Your task to perform on an android device: Go to calendar. Show me events next week Image 0: 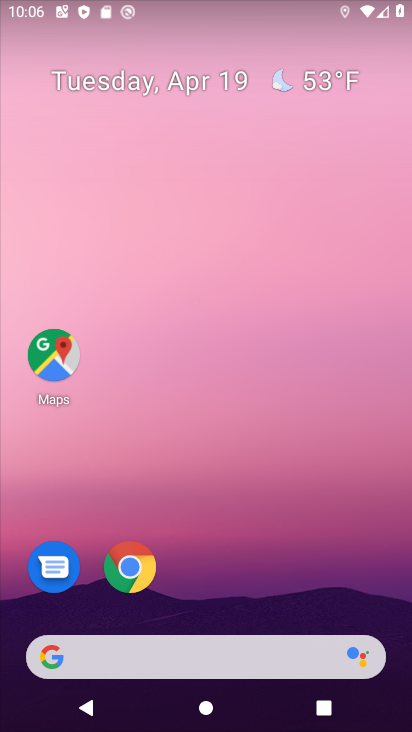
Step 0: drag from (310, 578) to (242, 187)
Your task to perform on an android device: Go to calendar. Show me events next week Image 1: 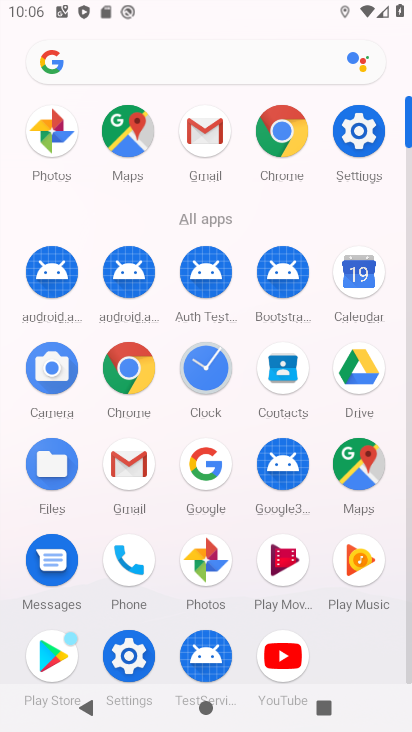
Step 1: click (367, 274)
Your task to perform on an android device: Go to calendar. Show me events next week Image 2: 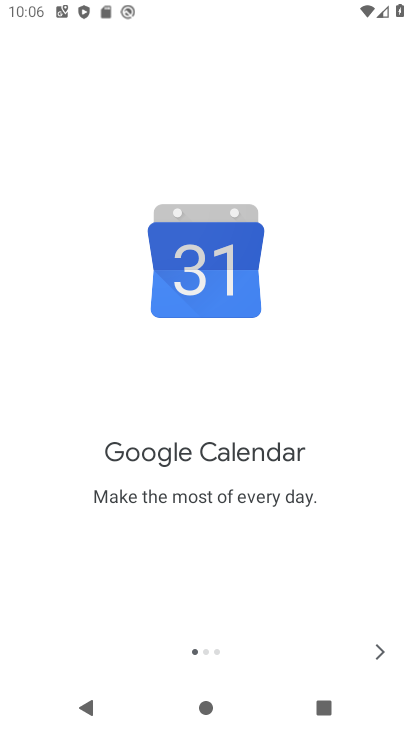
Step 2: click (378, 641)
Your task to perform on an android device: Go to calendar. Show me events next week Image 3: 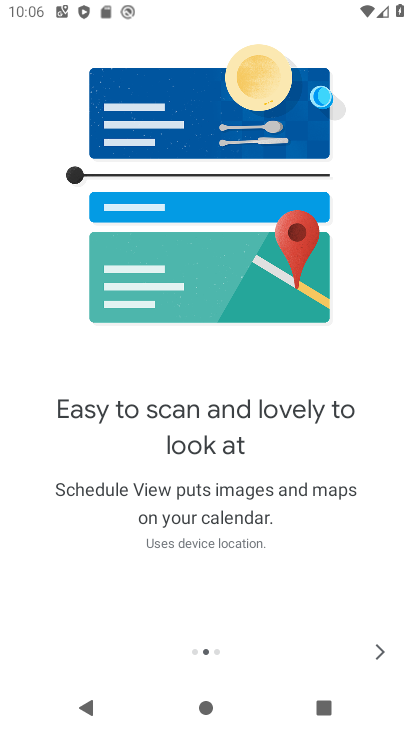
Step 3: click (383, 656)
Your task to perform on an android device: Go to calendar. Show me events next week Image 4: 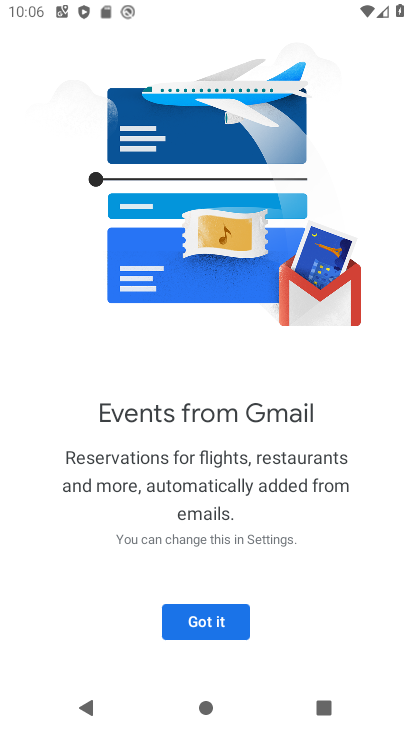
Step 4: click (200, 630)
Your task to perform on an android device: Go to calendar. Show me events next week Image 5: 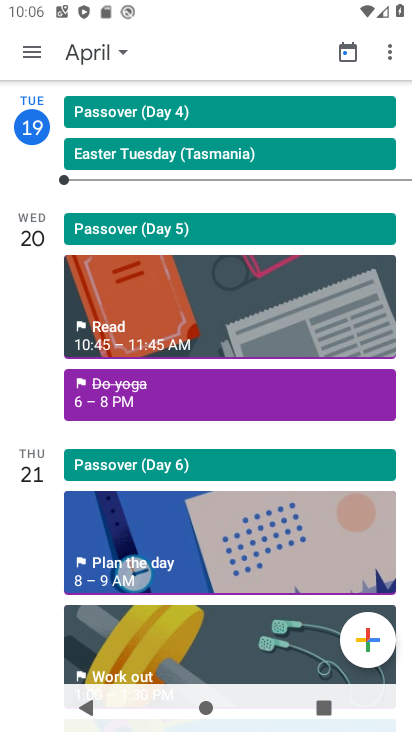
Step 5: click (33, 47)
Your task to perform on an android device: Go to calendar. Show me events next week Image 6: 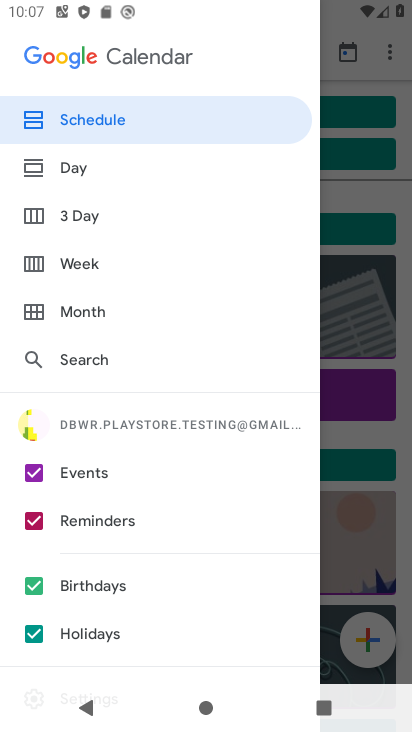
Step 6: click (33, 631)
Your task to perform on an android device: Go to calendar. Show me events next week Image 7: 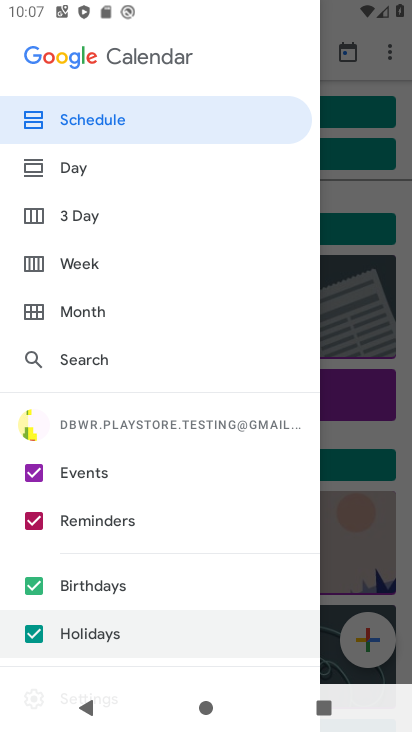
Step 7: click (31, 579)
Your task to perform on an android device: Go to calendar. Show me events next week Image 8: 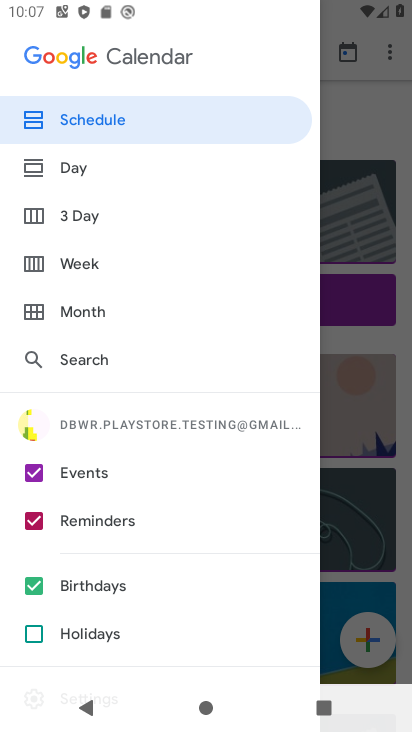
Step 8: click (32, 586)
Your task to perform on an android device: Go to calendar. Show me events next week Image 9: 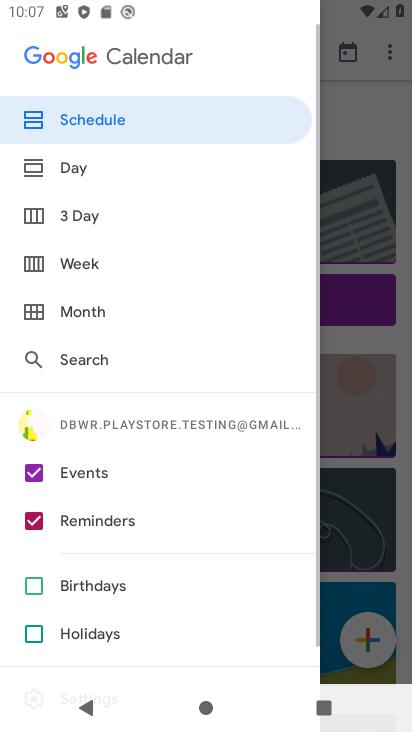
Step 9: click (32, 508)
Your task to perform on an android device: Go to calendar. Show me events next week Image 10: 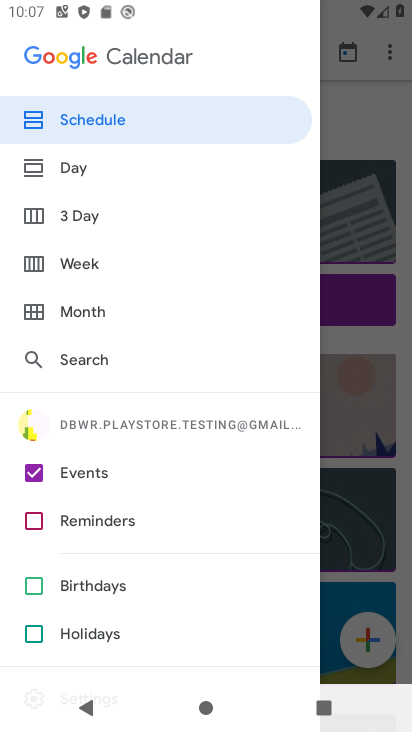
Step 10: click (146, 268)
Your task to perform on an android device: Go to calendar. Show me events next week Image 11: 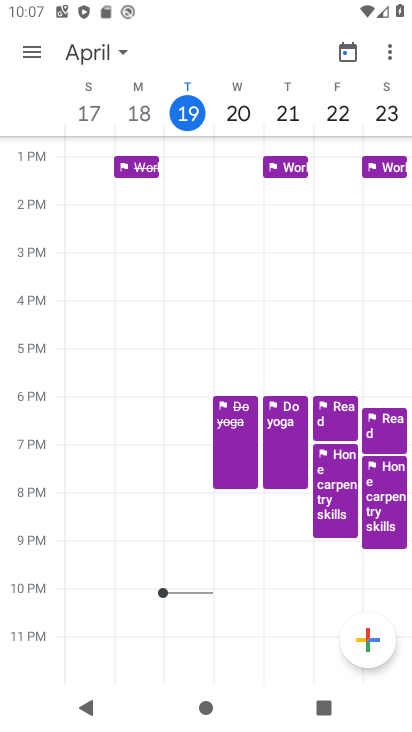
Step 11: click (130, 59)
Your task to perform on an android device: Go to calendar. Show me events next week Image 12: 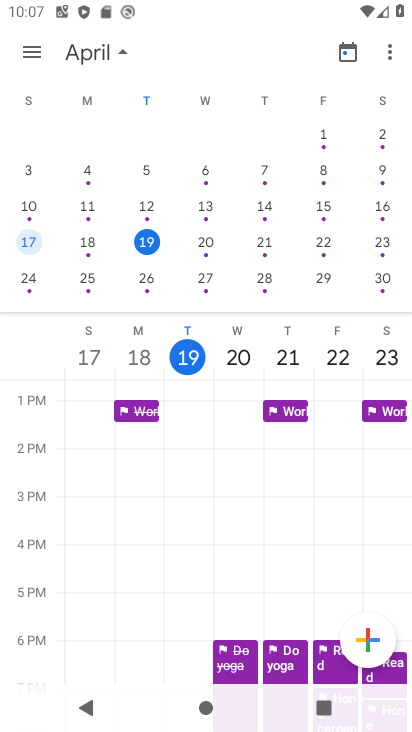
Step 12: click (144, 273)
Your task to perform on an android device: Go to calendar. Show me events next week Image 13: 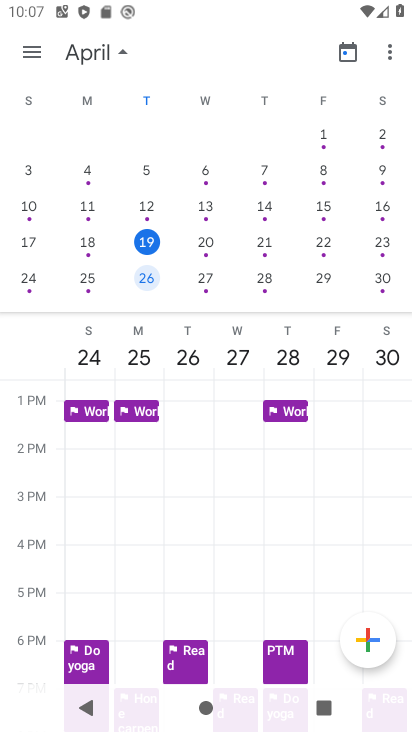
Step 13: task complete